Your task to perform on an android device: Open wifi settings Image 0: 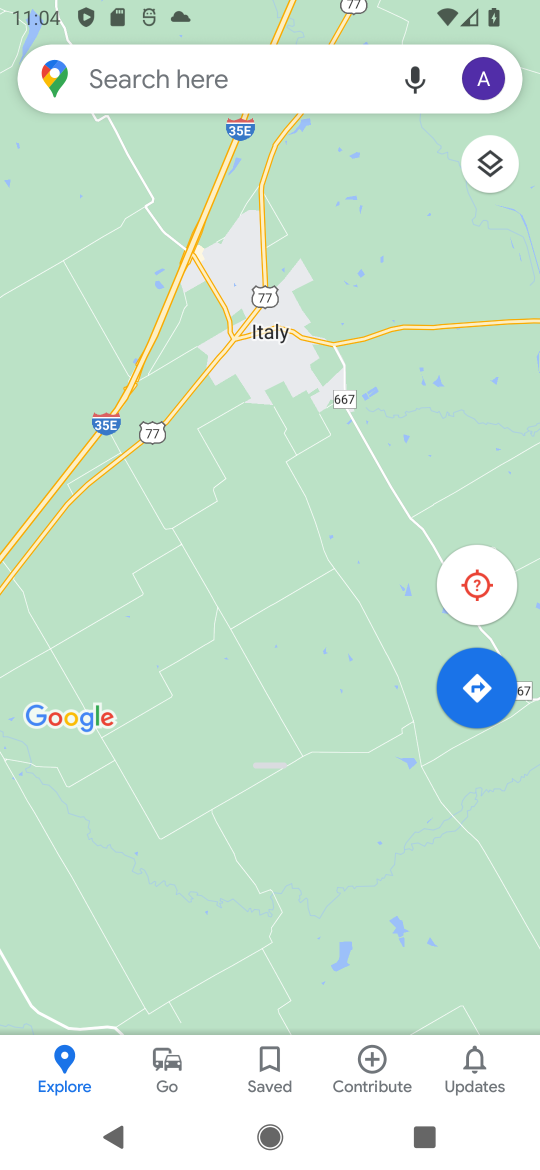
Step 0: press home button
Your task to perform on an android device: Open wifi settings Image 1: 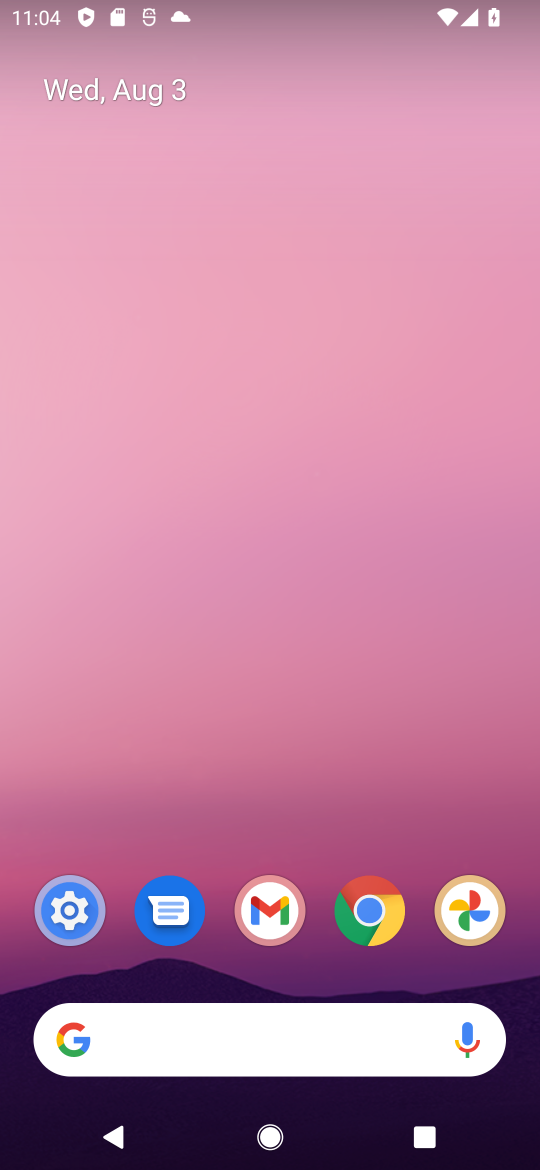
Step 1: drag from (357, 644) to (418, 177)
Your task to perform on an android device: Open wifi settings Image 2: 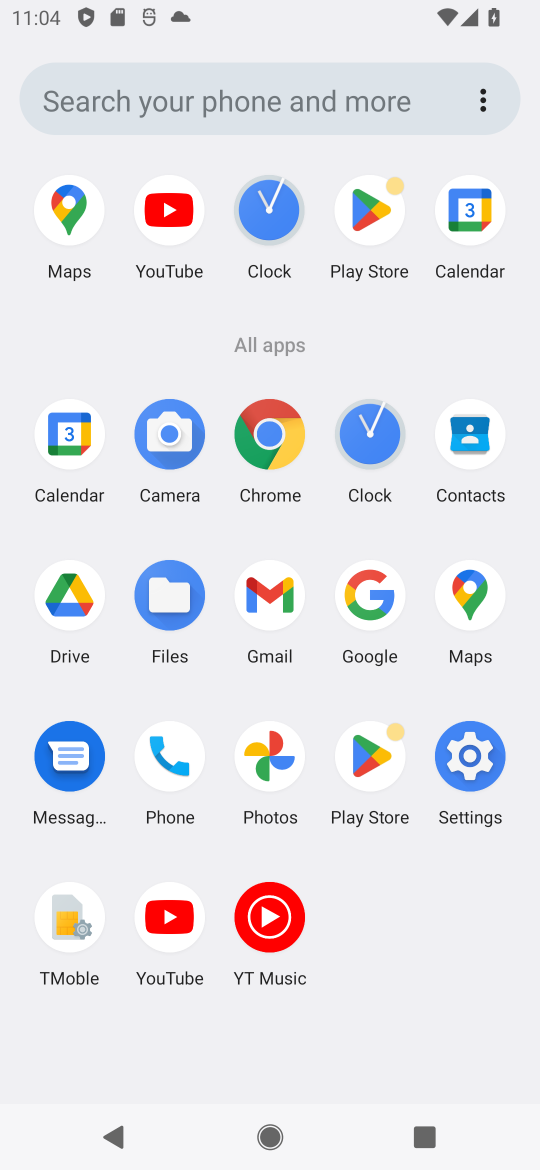
Step 2: click (483, 749)
Your task to perform on an android device: Open wifi settings Image 3: 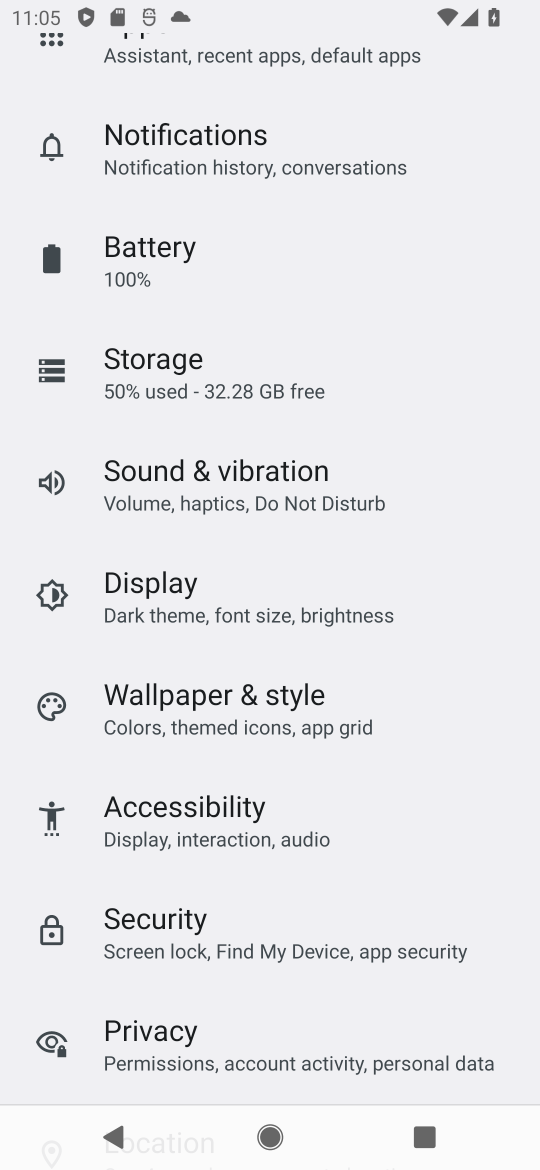
Step 3: drag from (254, 220) to (363, 842)
Your task to perform on an android device: Open wifi settings Image 4: 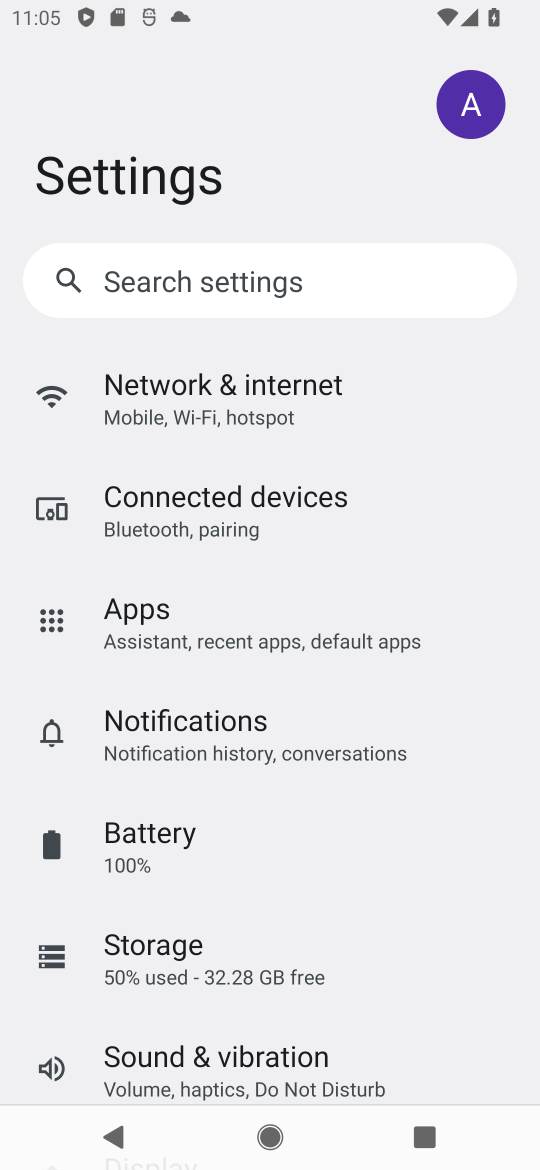
Step 4: click (320, 407)
Your task to perform on an android device: Open wifi settings Image 5: 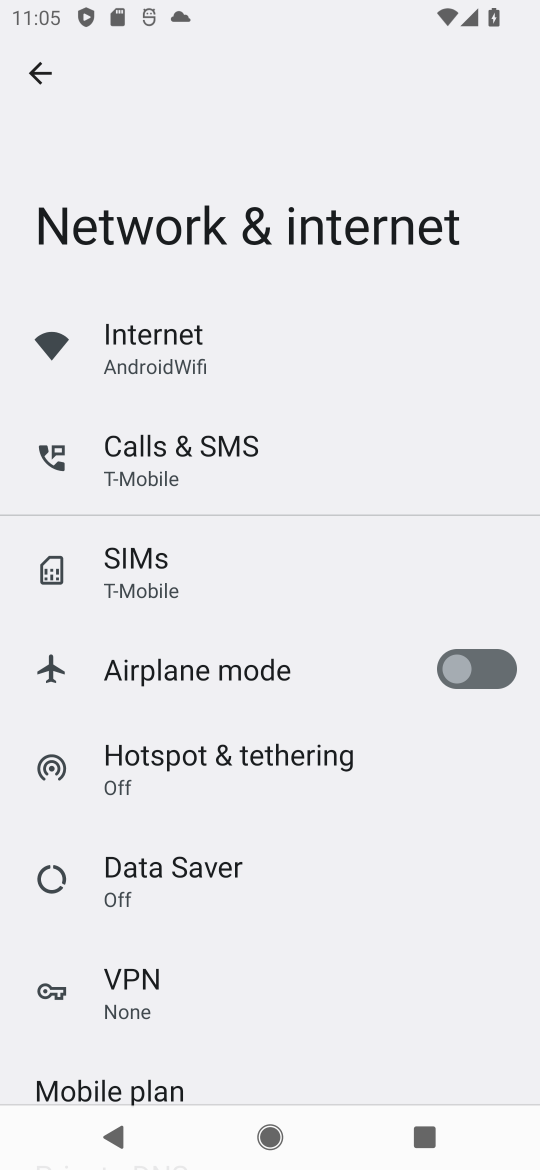
Step 5: click (239, 343)
Your task to perform on an android device: Open wifi settings Image 6: 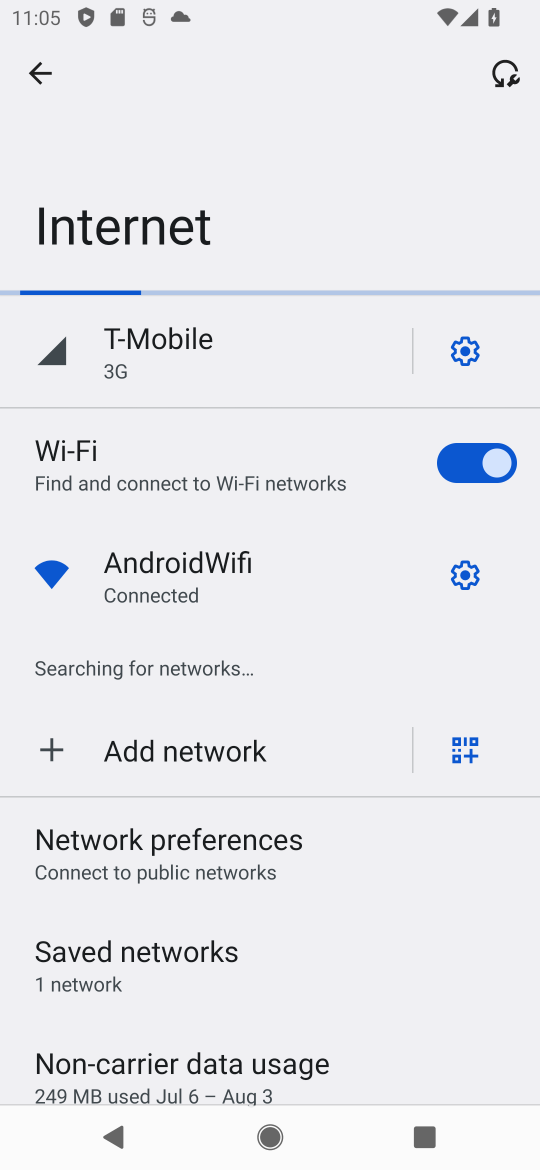
Step 6: task complete